Your task to perform on an android device: Open the calendar and show me this week's events? Image 0: 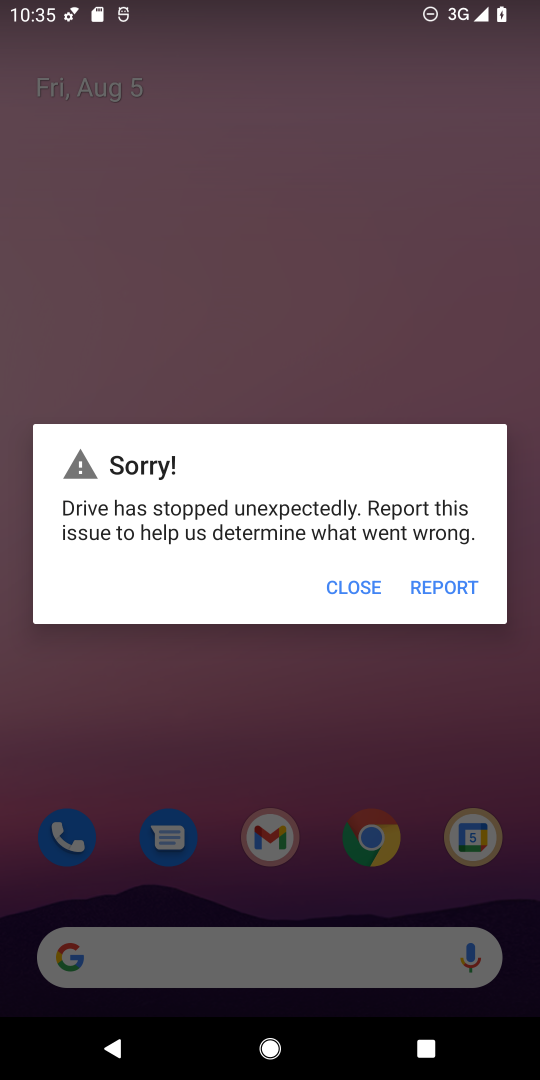
Step 0: press home button
Your task to perform on an android device: Open the calendar and show me this week's events? Image 1: 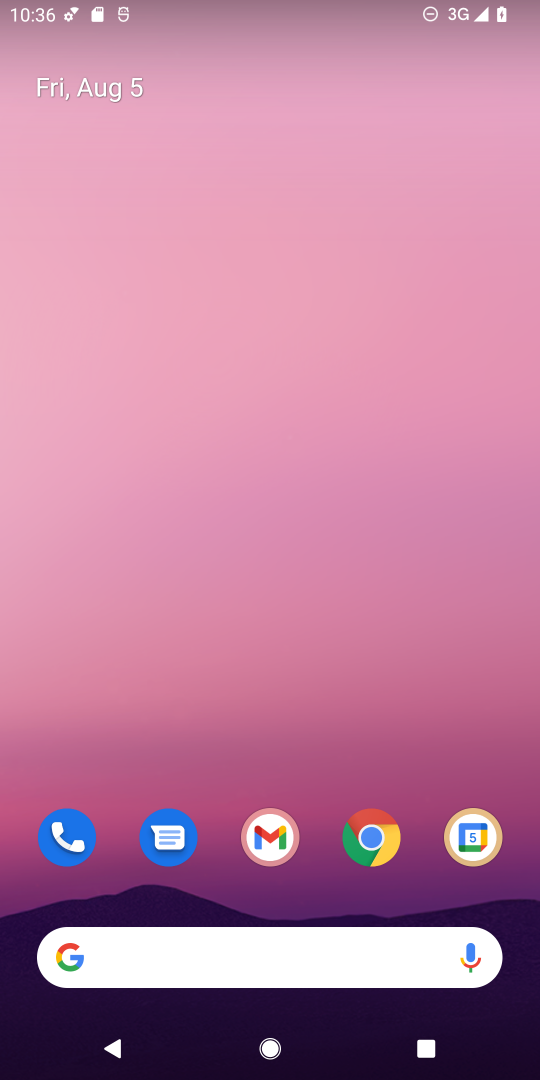
Step 1: drag from (265, 704) to (340, 98)
Your task to perform on an android device: Open the calendar and show me this week's events? Image 2: 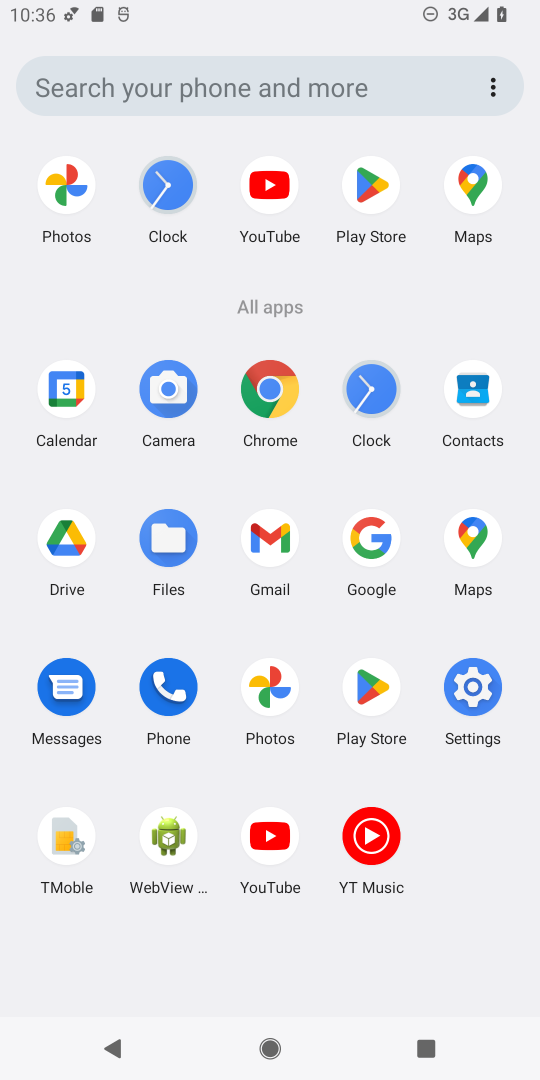
Step 2: click (67, 390)
Your task to perform on an android device: Open the calendar and show me this week's events? Image 3: 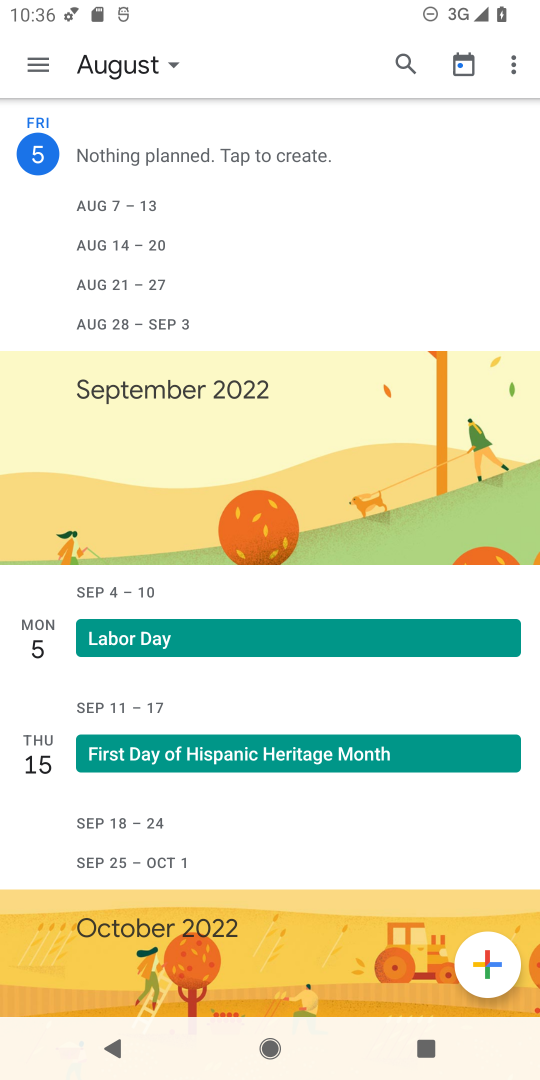
Step 3: click (39, 62)
Your task to perform on an android device: Open the calendar and show me this week's events? Image 4: 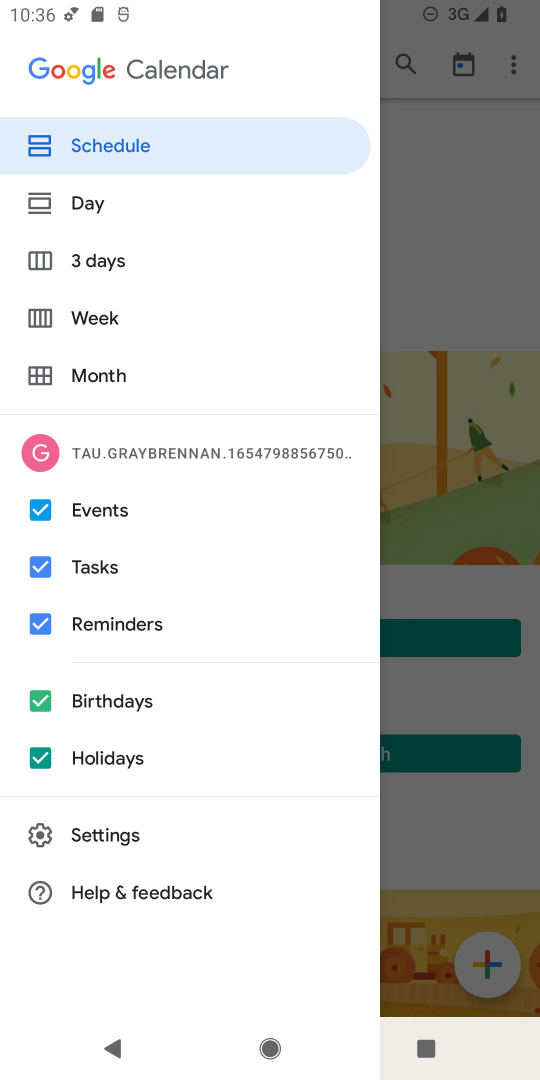
Step 4: click (37, 305)
Your task to perform on an android device: Open the calendar and show me this week's events? Image 5: 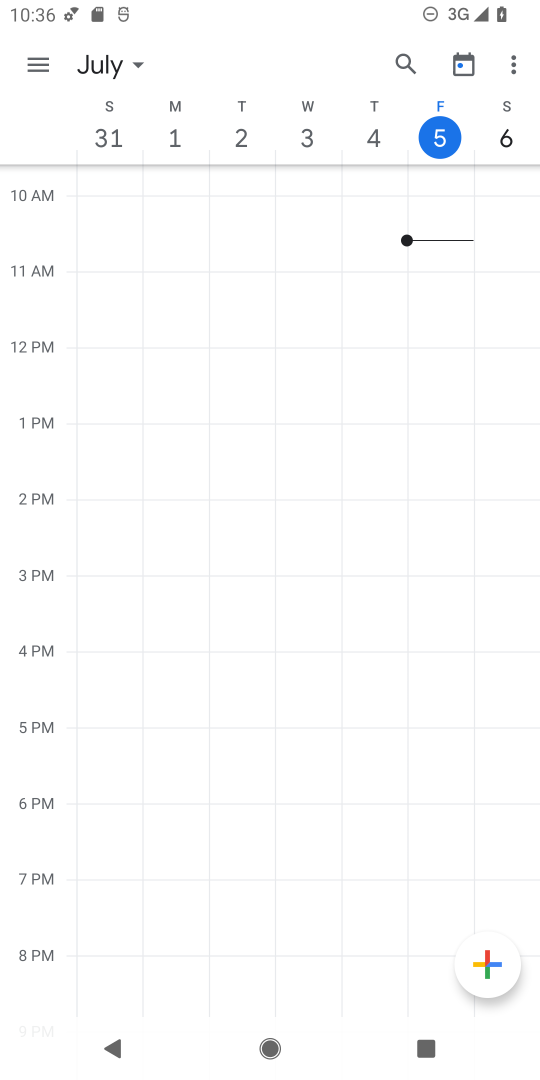
Step 5: task complete